Your task to perform on an android device: Open calendar and show me the third week of next month Image 0: 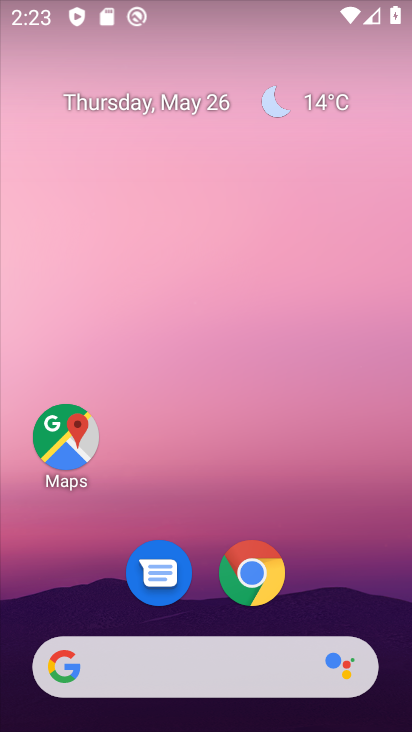
Step 0: drag from (297, 466) to (225, 60)
Your task to perform on an android device: Open calendar and show me the third week of next month Image 1: 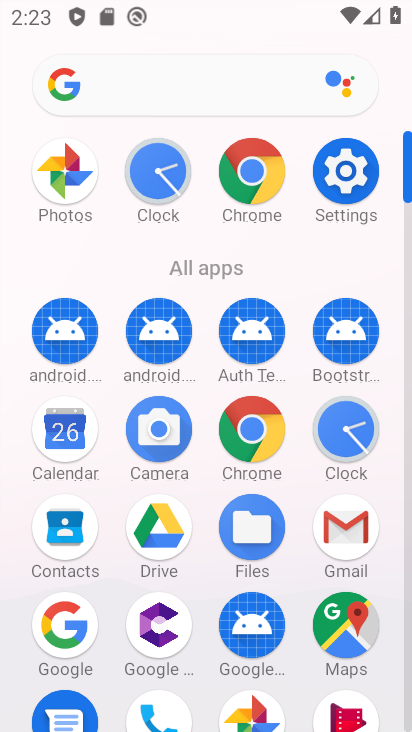
Step 1: drag from (11, 548) to (25, 239)
Your task to perform on an android device: Open calendar and show me the third week of next month Image 2: 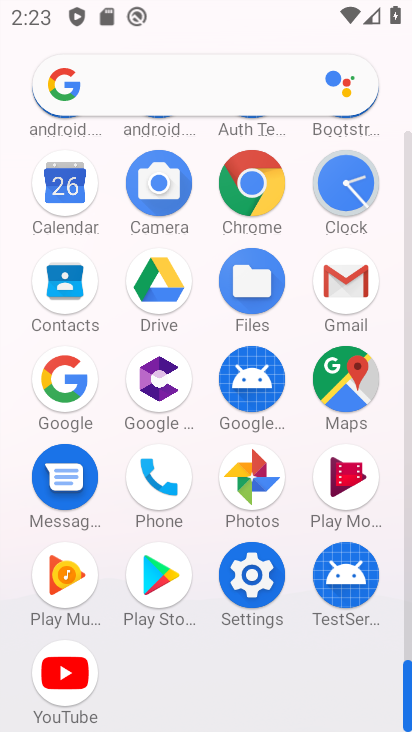
Step 2: drag from (22, 527) to (33, 191)
Your task to perform on an android device: Open calendar and show me the third week of next month Image 3: 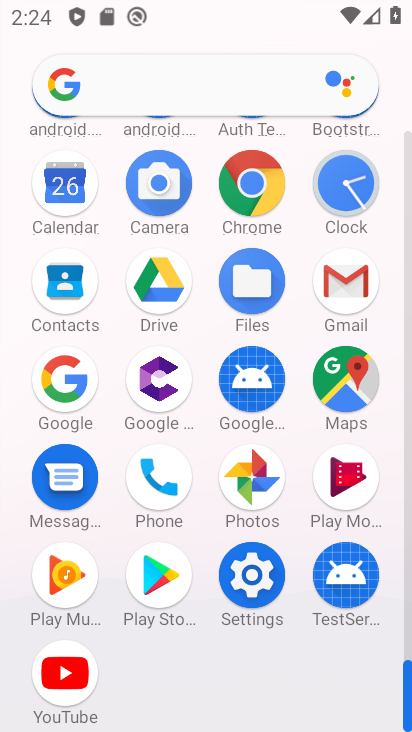
Step 3: click (60, 177)
Your task to perform on an android device: Open calendar and show me the third week of next month Image 4: 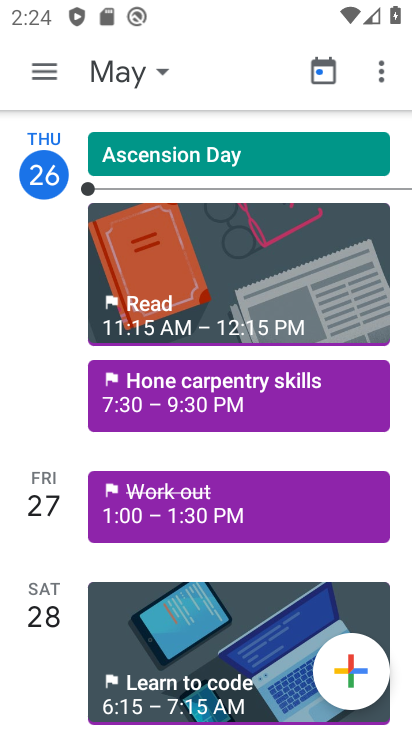
Step 4: click (119, 77)
Your task to perform on an android device: Open calendar and show me the third week of next month Image 5: 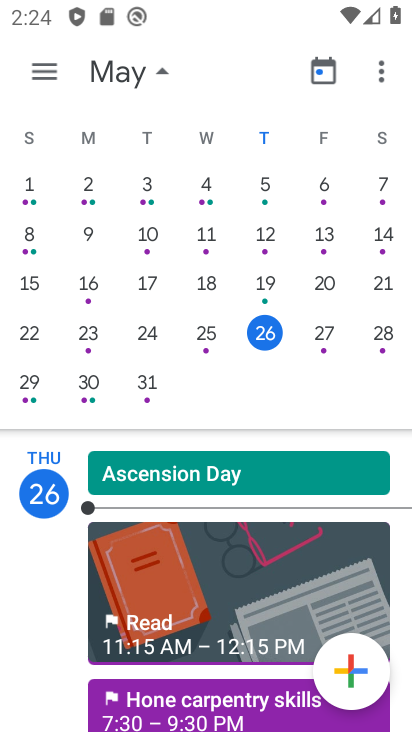
Step 5: drag from (372, 279) to (2, 222)
Your task to perform on an android device: Open calendar and show me the third week of next month Image 6: 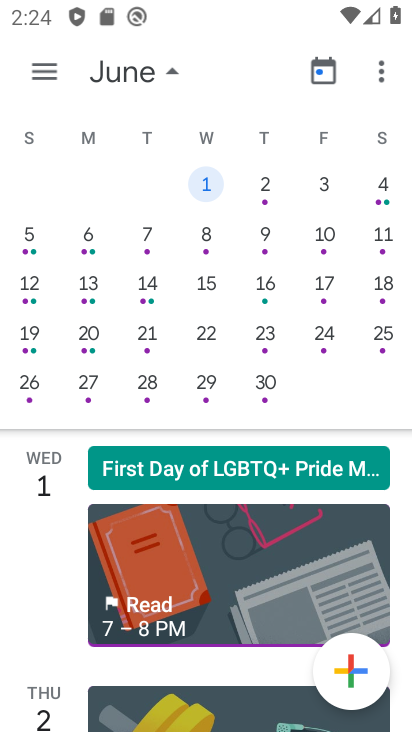
Step 6: click (26, 278)
Your task to perform on an android device: Open calendar and show me the third week of next month Image 7: 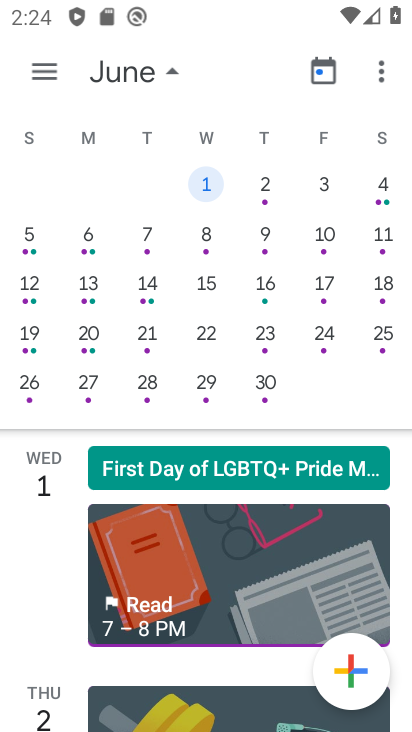
Step 7: click (32, 279)
Your task to perform on an android device: Open calendar and show me the third week of next month Image 8: 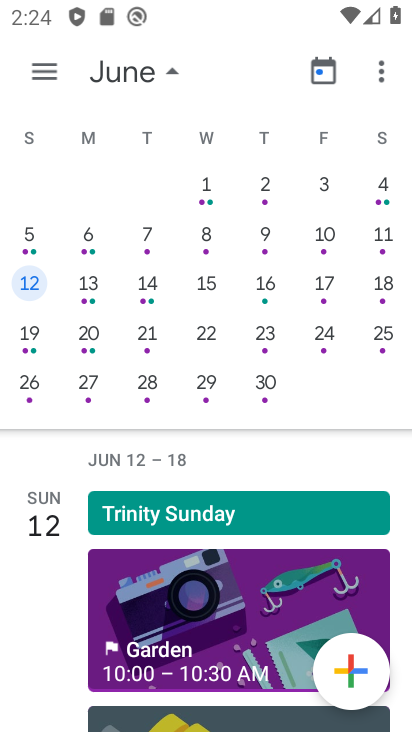
Step 8: click (46, 71)
Your task to perform on an android device: Open calendar and show me the third week of next month Image 9: 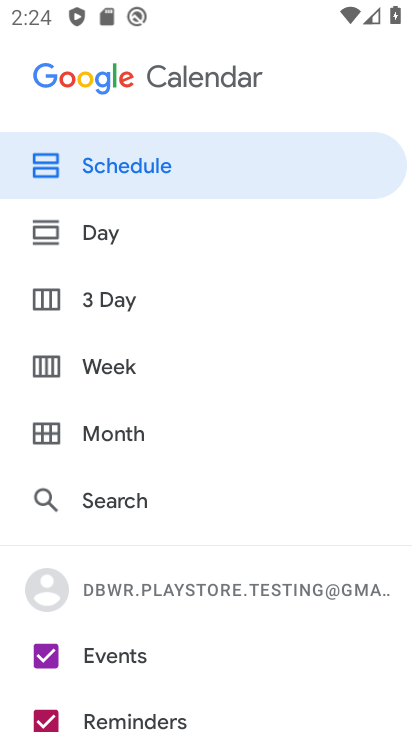
Step 9: click (111, 360)
Your task to perform on an android device: Open calendar and show me the third week of next month Image 10: 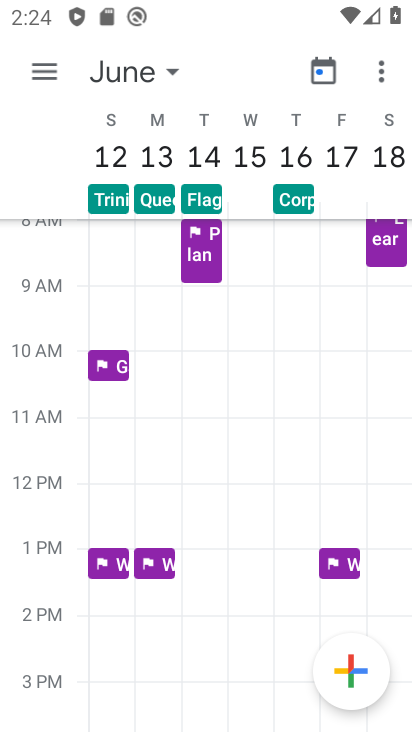
Step 10: task complete